Your task to perform on an android device: turn on priority inbox in the gmail app Image 0: 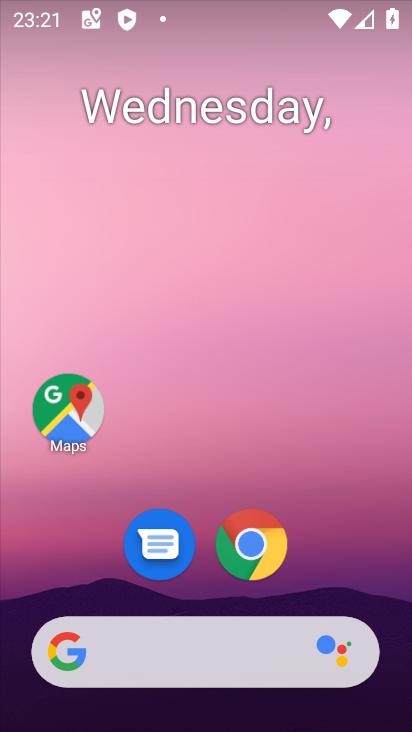
Step 0: drag from (327, 592) to (273, 3)
Your task to perform on an android device: turn on priority inbox in the gmail app Image 1: 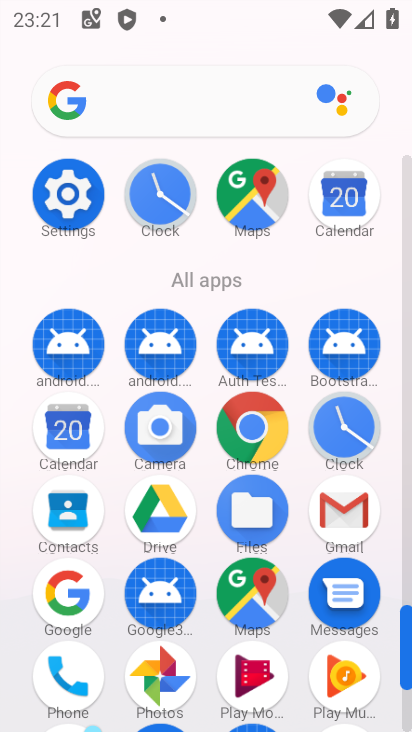
Step 1: click (357, 500)
Your task to perform on an android device: turn on priority inbox in the gmail app Image 2: 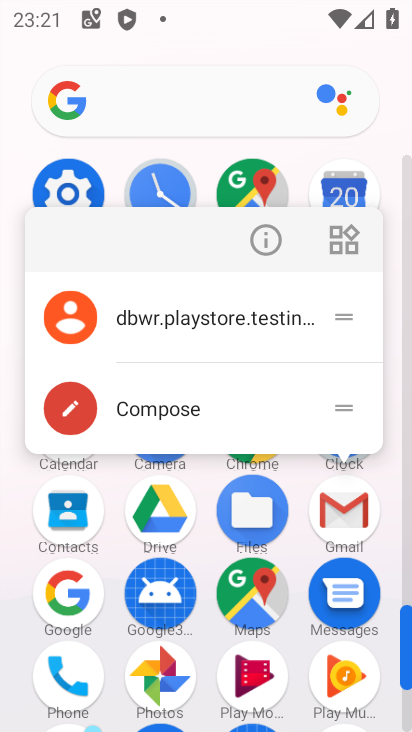
Step 2: click (356, 502)
Your task to perform on an android device: turn on priority inbox in the gmail app Image 3: 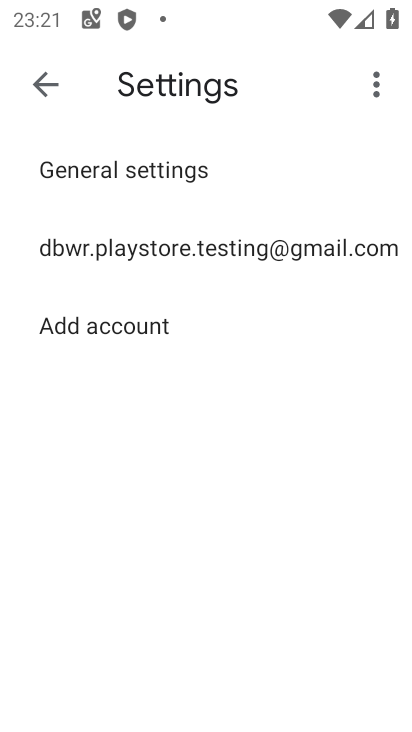
Step 3: click (61, 249)
Your task to perform on an android device: turn on priority inbox in the gmail app Image 4: 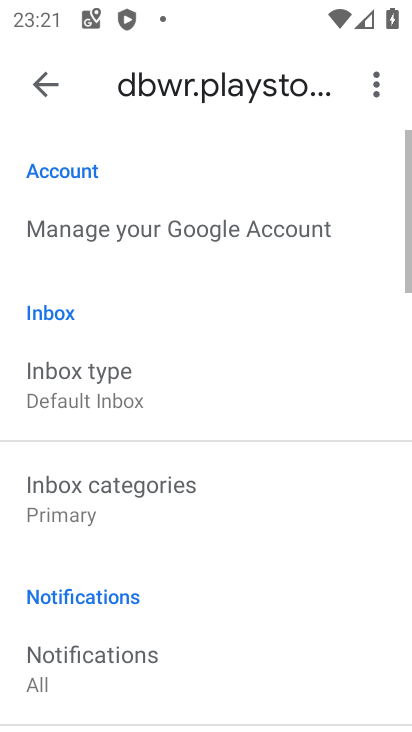
Step 4: click (100, 391)
Your task to perform on an android device: turn on priority inbox in the gmail app Image 5: 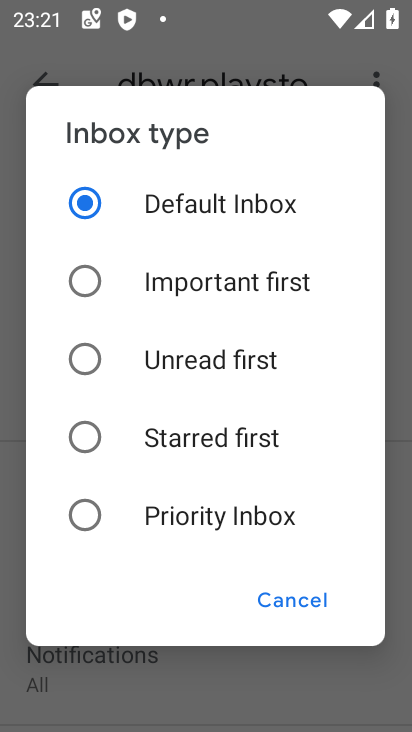
Step 5: click (127, 522)
Your task to perform on an android device: turn on priority inbox in the gmail app Image 6: 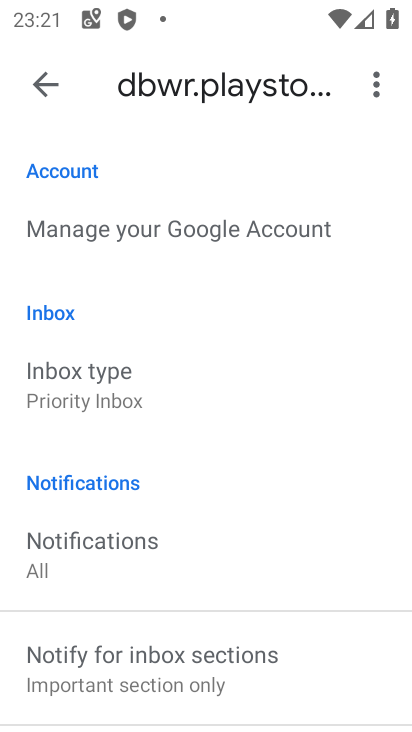
Step 6: task complete